Your task to perform on an android device: turn vacation reply on in the gmail app Image 0: 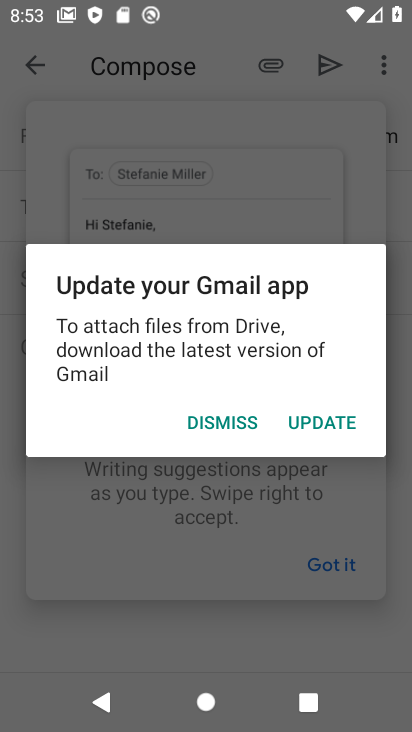
Step 0: press home button
Your task to perform on an android device: turn vacation reply on in the gmail app Image 1: 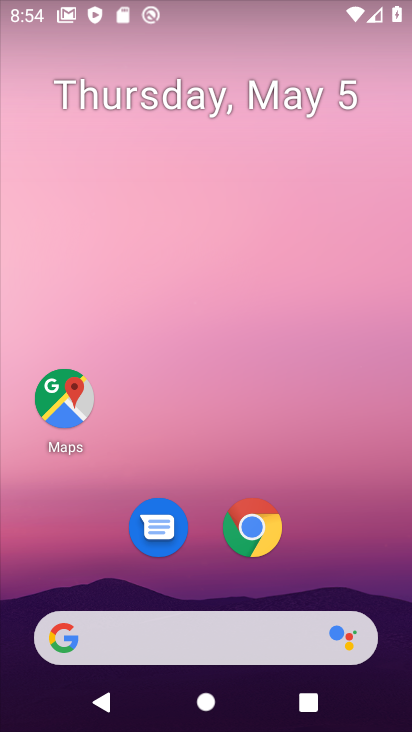
Step 1: drag from (387, 587) to (282, 108)
Your task to perform on an android device: turn vacation reply on in the gmail app Image 2: 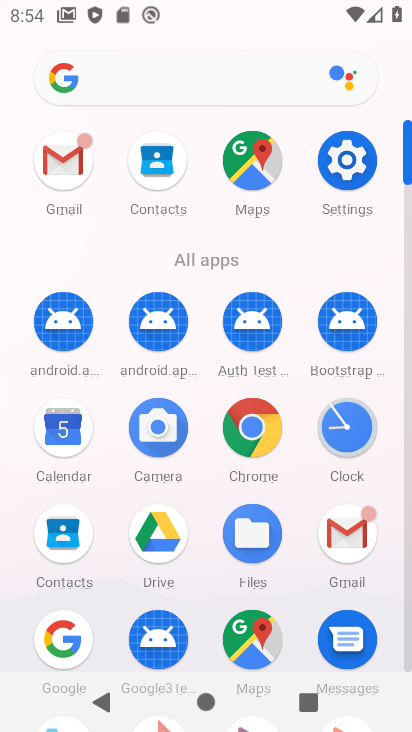
Step 2: click (69, 174)
Your task to perform on an android device: turn vacation reply on in the gmail app Image 3: 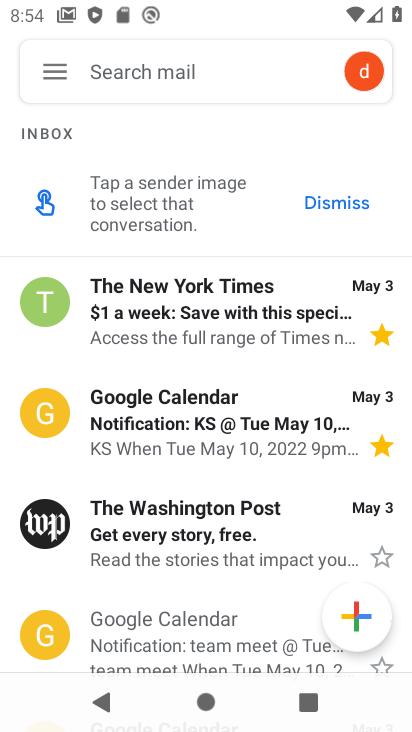
Step 3: click (55, 82)
Your task to perform on an android device: turn vacation reply on in the gmail app Image 4: 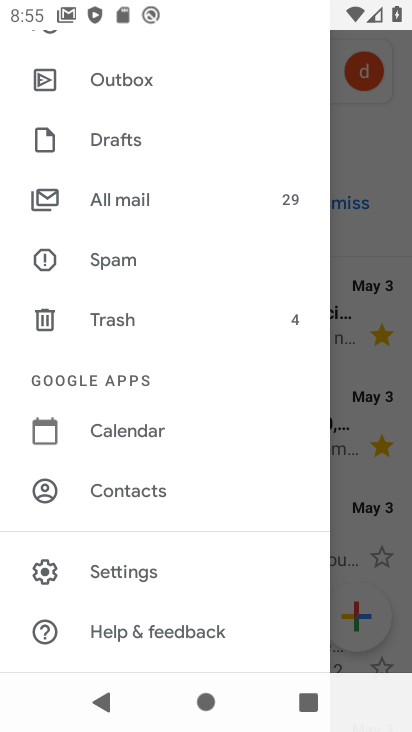
Step 4: click (194, 567)
Your task to perform on an android device: turn vacation reply on in the gmail app Image 5: 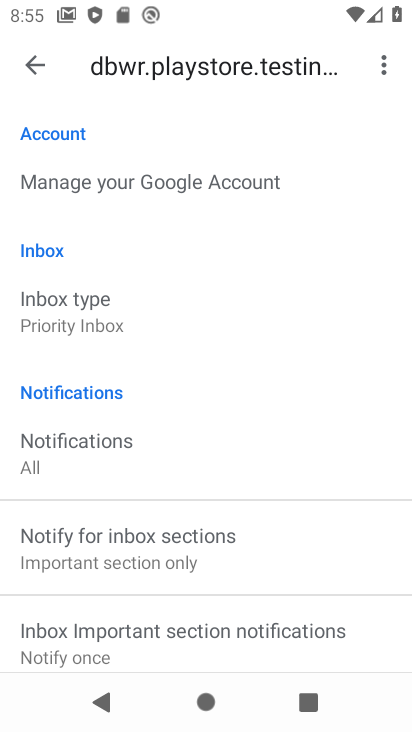
Step 5: drag from (260, 610) to (253, 98)
Your task to perform on an android device: turn vacation reply on in the gmail app Image 6: 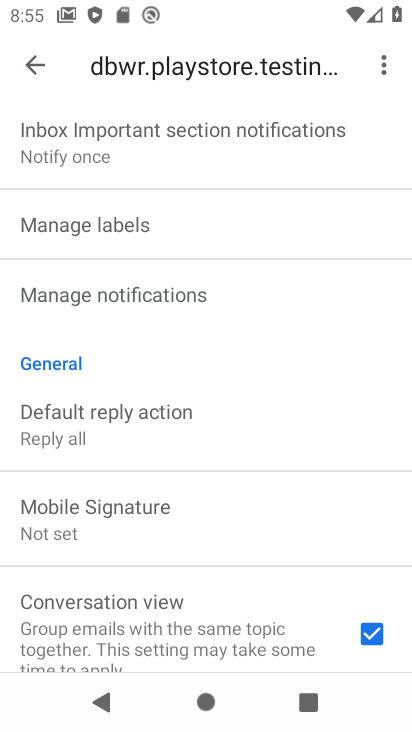
Step 6: drag from (240, 510) to (270, 90)
Your task to perform on an android device: turn vacation reply on in the gmail app Image 7: 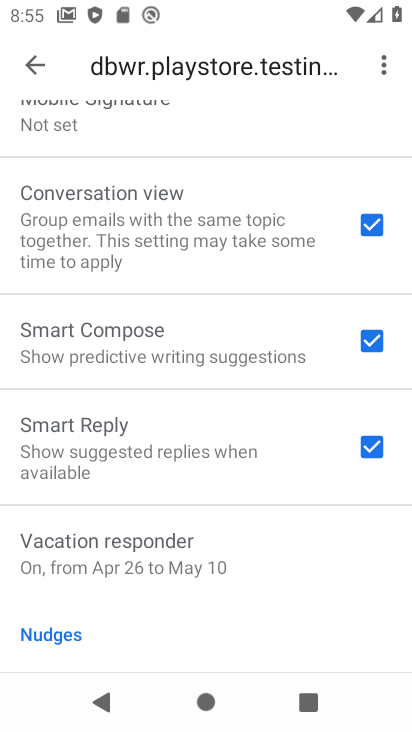
Step 7: click (235, 578)
Your task to perform on an android device: turn vacation reply on in the gmail app Image 8: 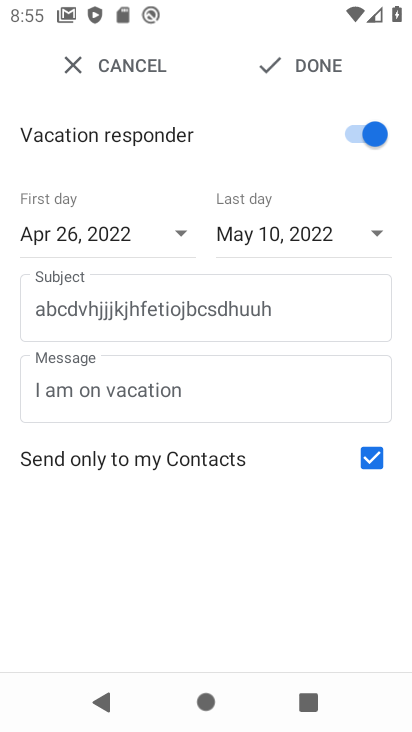
Step 8: click (176, 221)
Your task to perform on an android device: turn vacation reply on in the gmail app Image 9: 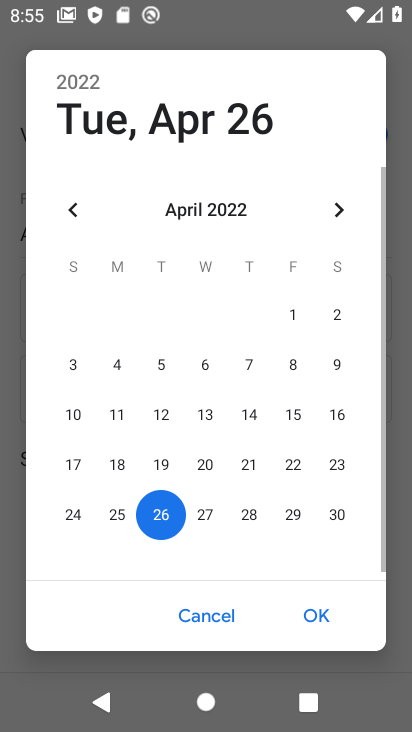
Step 9: click (337, 217)
Your task to perform on an android device: turn vacation reply on in the gmail app Image 10: 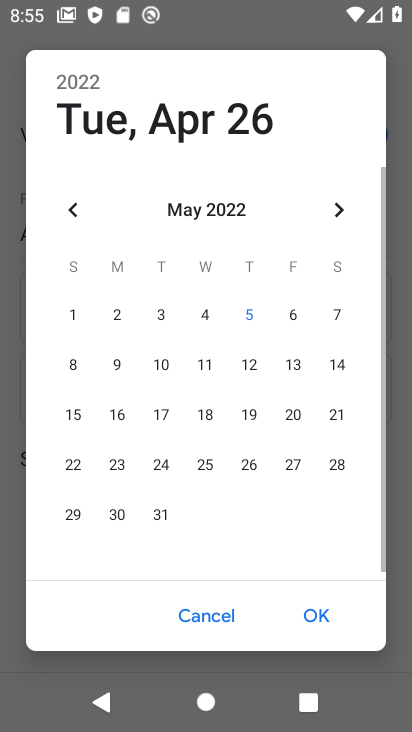
Step 10: click (255, 308)
Your task to perform on an android device: turn vacation reply on in the gmail app Image 11: 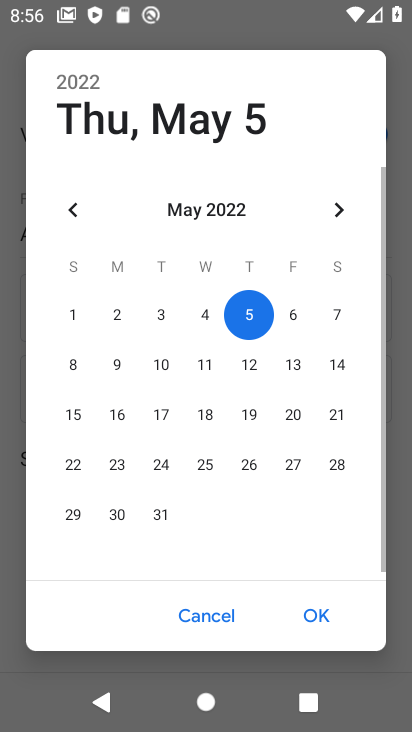
Step 11: click (318, 621)
Your task to perform on an android device: turn vacation reply on in the gmail app Image 12: 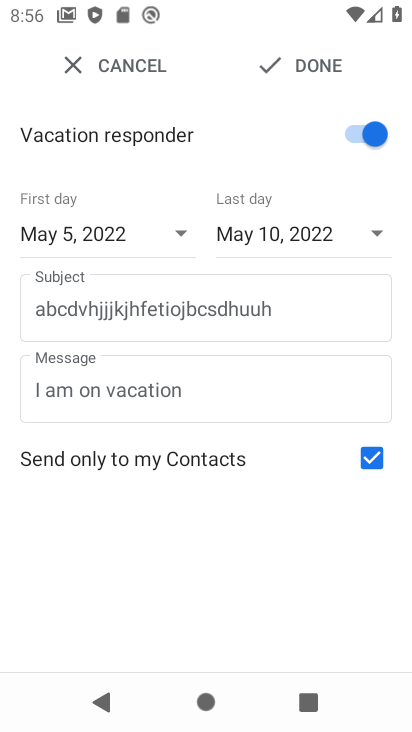
Step 12: click (314, 66)
Your task to perform on an android device: turn vacation reply on in the gmail app Image 13: 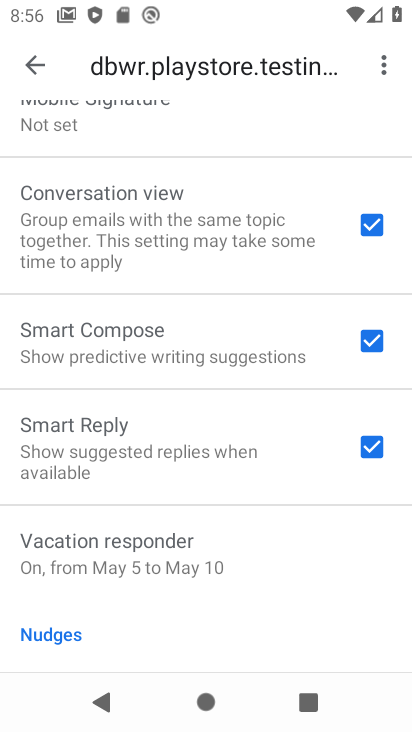
Step 13: press home button
Your task to perform on an android device: turn vacation reply on in the gmail app Image 14: 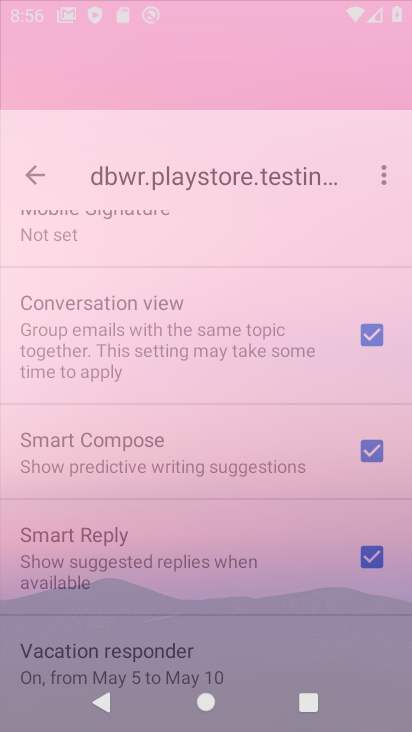
Step 14: drag from (329, 447) to (343, 188)
Your task to perform on an android device: turn vacation reply on in the gmail app Image 15: 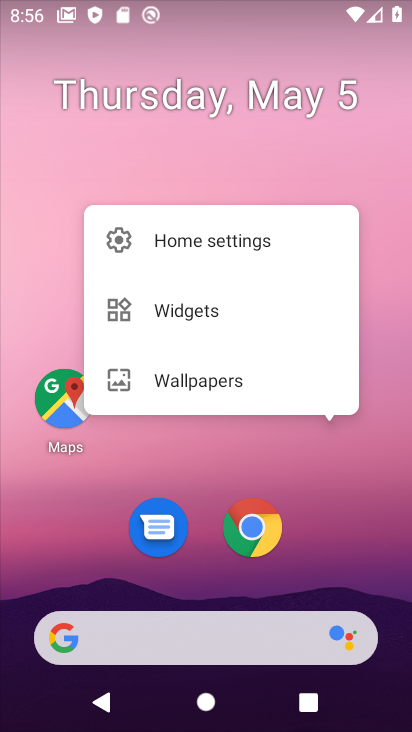
Step 15: click (353, 166)
Your task to perform on an android device: turn vacation reply on in the gmail app Image 16: 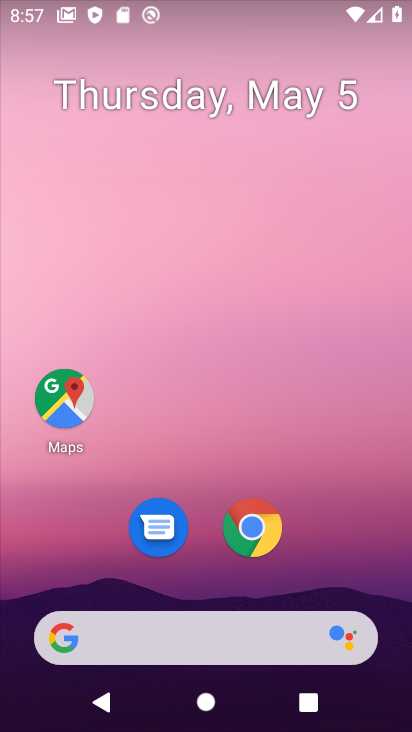
Step 16: drag from (358, 535) to (290, 142)
Your task to perform on an android device: turn vacation reply on in the gmail app Image 17: 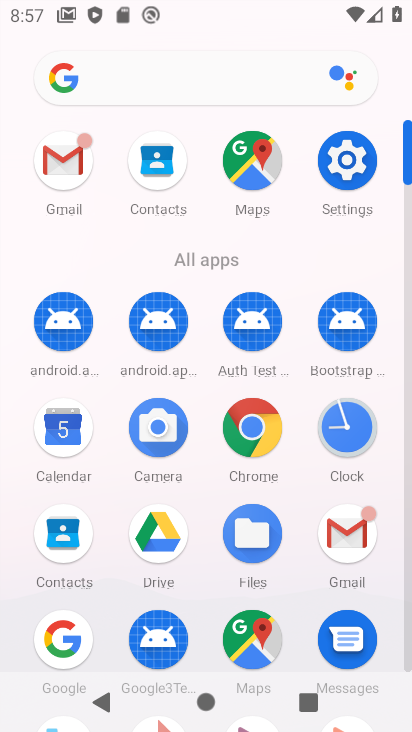
Step 17: click (73, 148)
Your task to perform on an android device: turn vacation reply on in the gmail app Image 18: 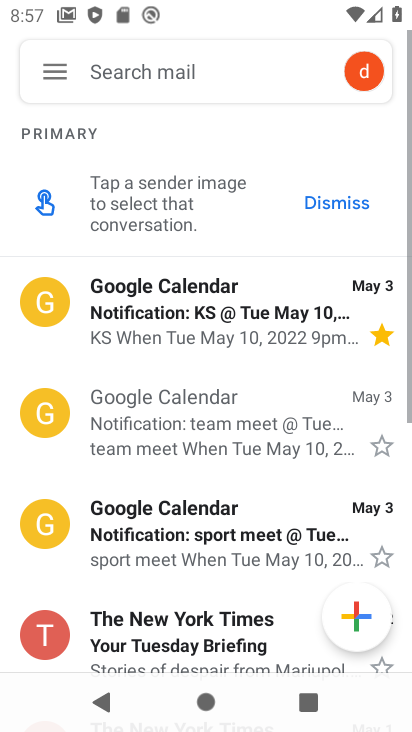
Step 18: click (32, 77)
Your task to perform on an android device: turn vacation reply on in the gmail app Image 19: 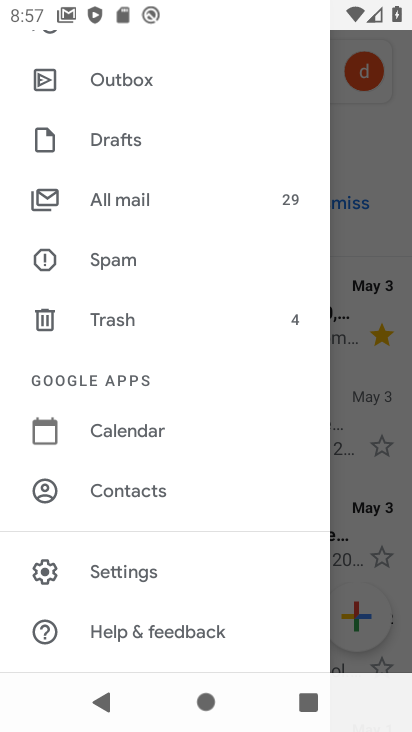
Step 19: click (142, 556)
Your task to perform on an android device: turn vacation reply on in the gmail app Image 20: 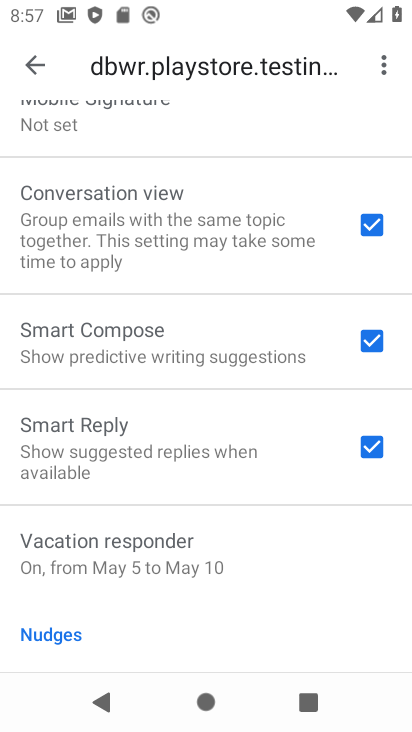
Step 20: click (207, 564)
Your task to perform on an android device: turn vacation reply on in the gmail app Image 21: 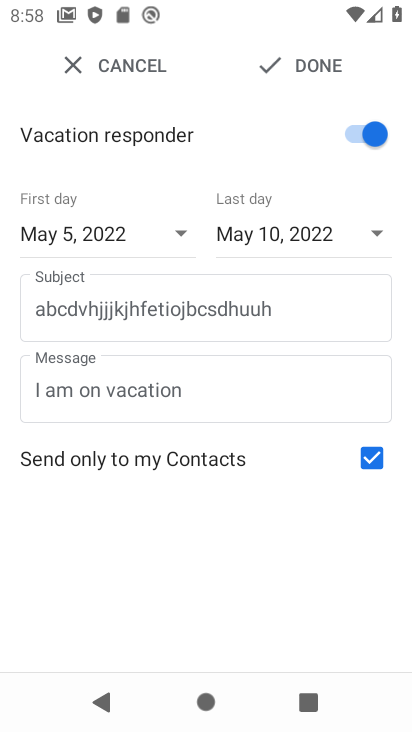
Step 21: click (320, 70)
Your task to perform on an android device: turn vacation reply on in the gmail app Image 22: 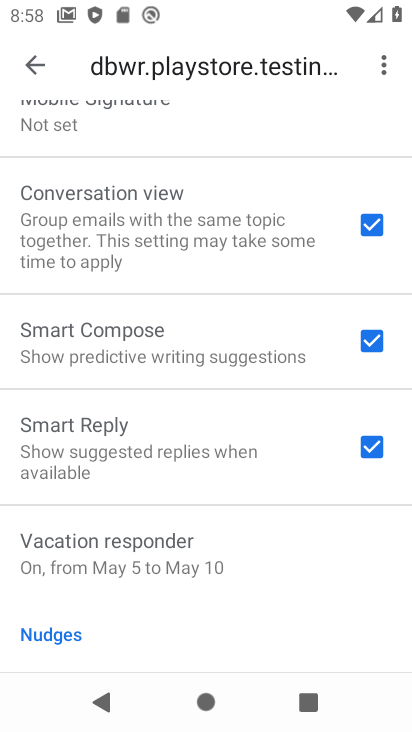
Step 22: task complete